Your task to perform on an android device: install app "HBO Max: Stream TV & Movies" Image 0: 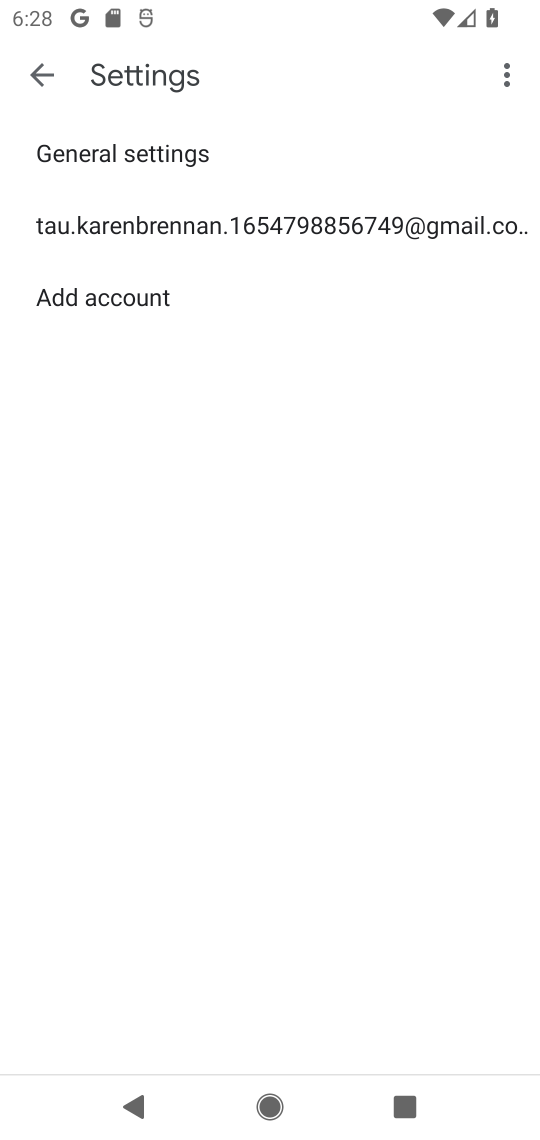
Step 0: press home button
Your task to perform on an android device: install app "HBO Max: Stream TV & Movies" Image 1: 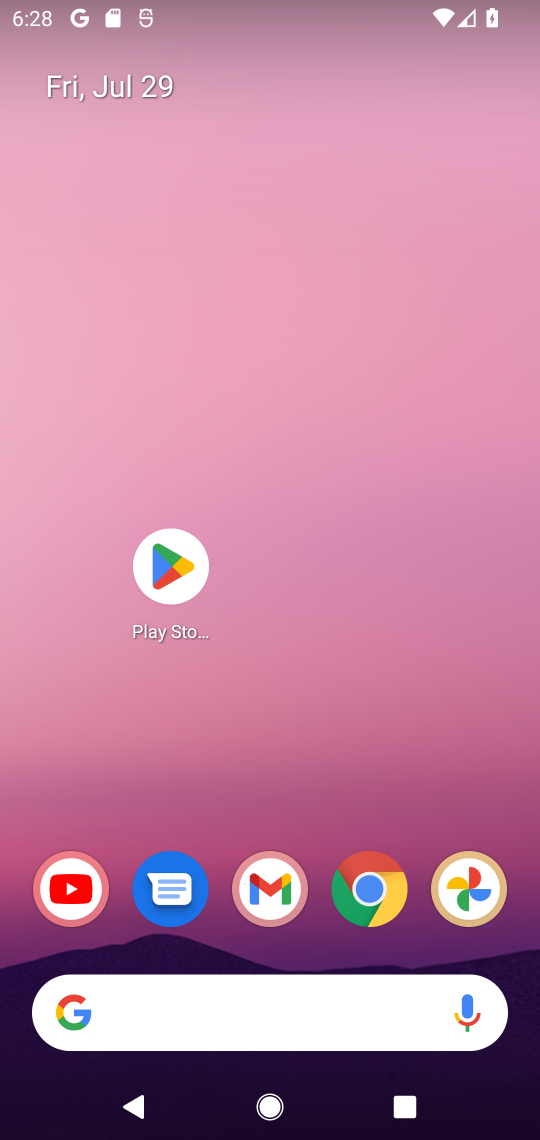
Step 1: click (165, 580)
Your task to perform on an android device: install app "HBO Max: Stream TV & Movies" Image 2: 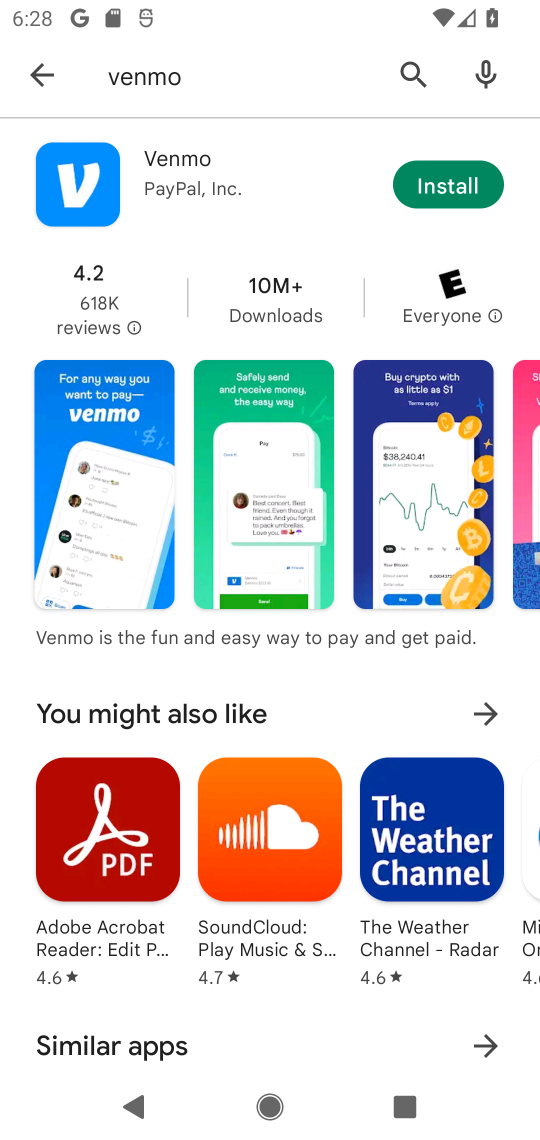
Step 2: click (400, 70)
Your task to perform on an android device: install app "HBO Max: Stream TV & Movies" Image 3: 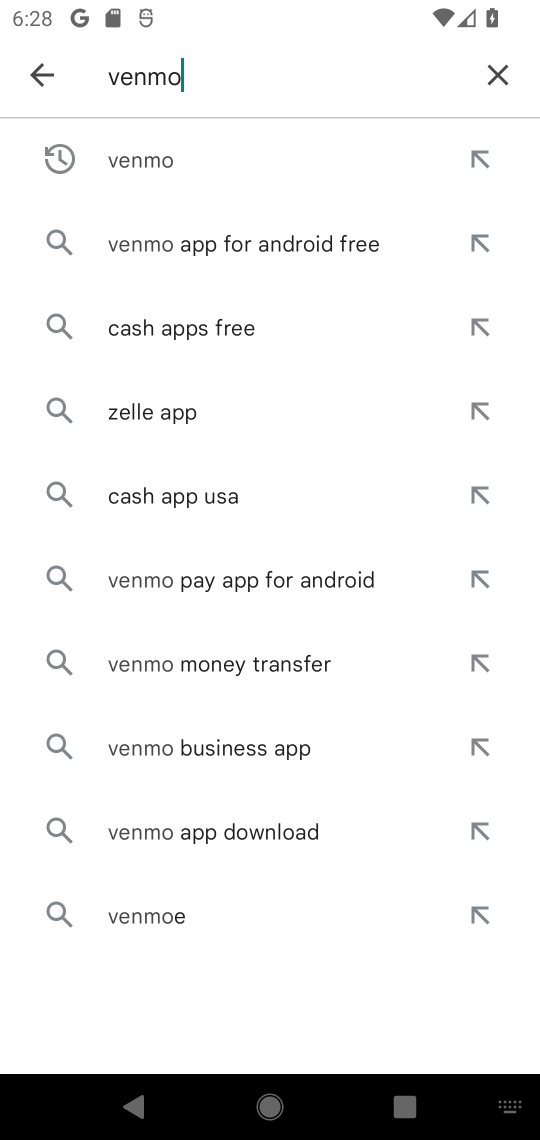
Step 3: click (504, 70)
Your task to perform on an android device: install app "HBO Max: Stream TV & Movies" Image 4: 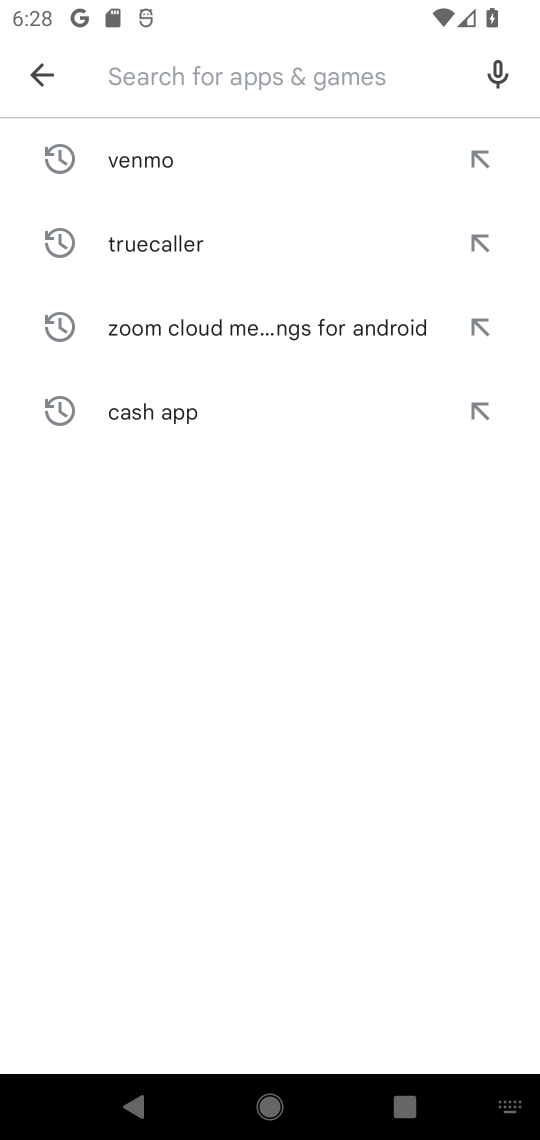
Step 4: type "HBO Max: Stream TV & Movies"
Your task to perform on an android device: install app "HBO Max: Stream TV & Movies" Image 5: 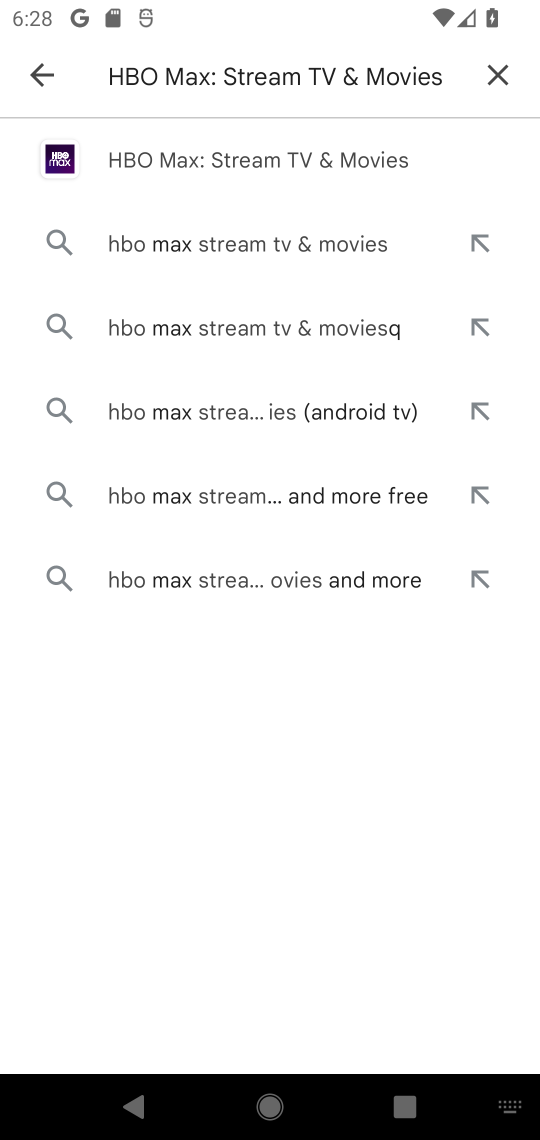
Step 5: click (262, 160)
Your task to perform on an android device: install app "HBO Max: Stream TV & Movies" Image 6: 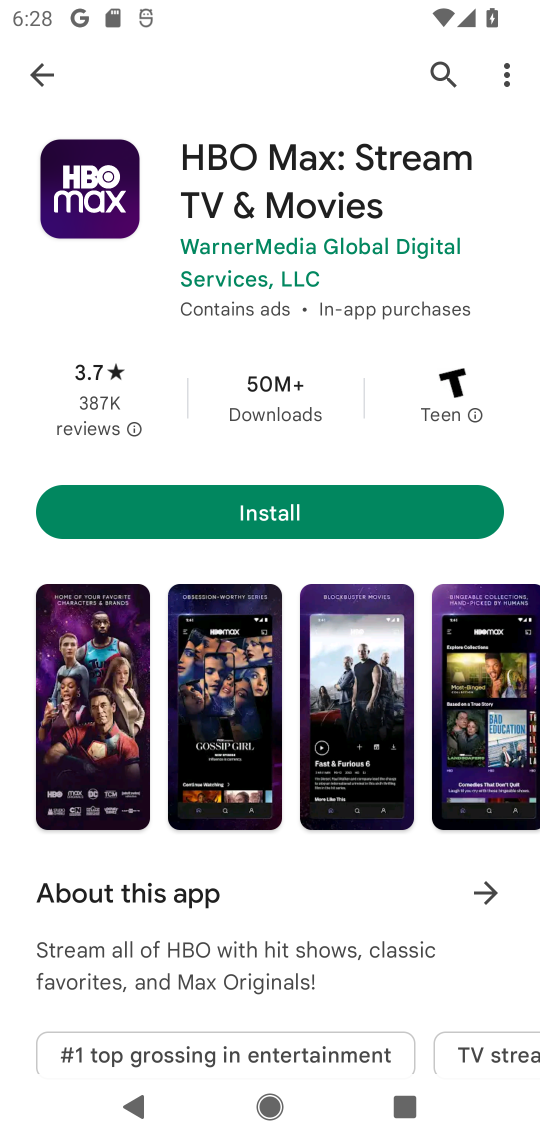
Step 6: click (279, 512)
Your task to perform on an android device: install app "HBO Max: Stream TV & Movies" Image 7: 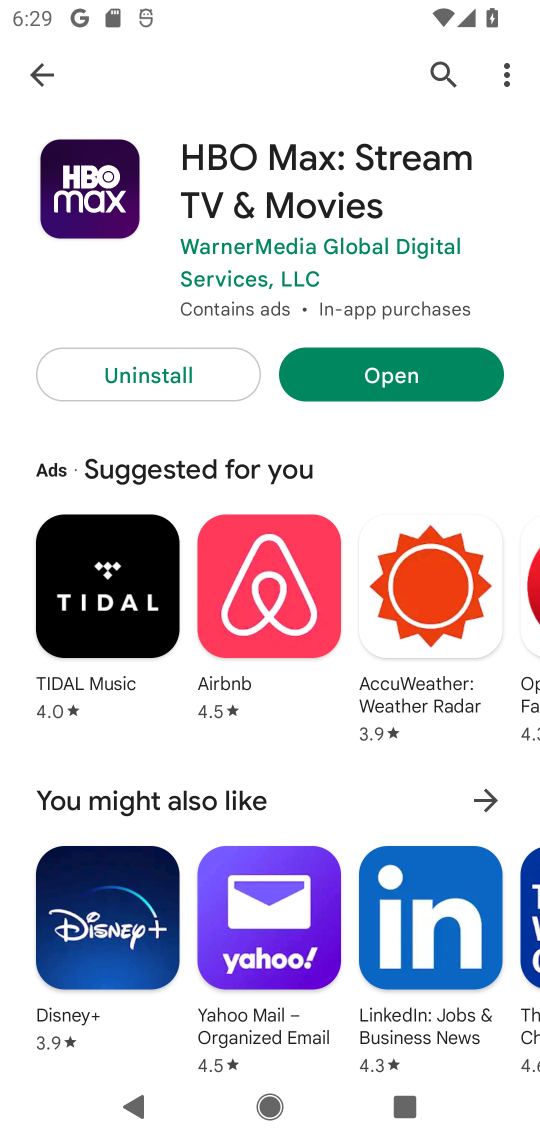
Step 7: task complete